Your task to perform on an android device: Go to Reddit.com Image 0: 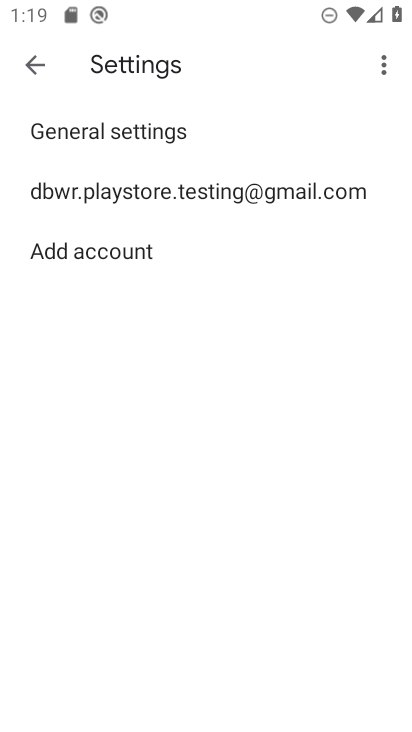
Step 0: press home button
Your task to perform on an android device: Go to Reddit.com Image 1: 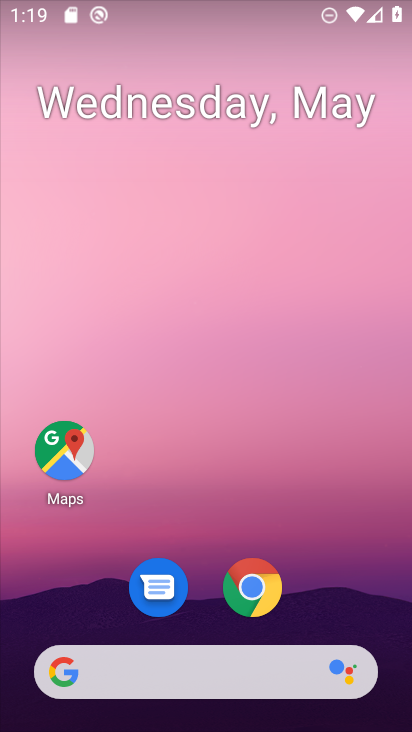
Step 1: click (256, 593)
Your task to perform on an android device: Go to Reddit.com Image 2: 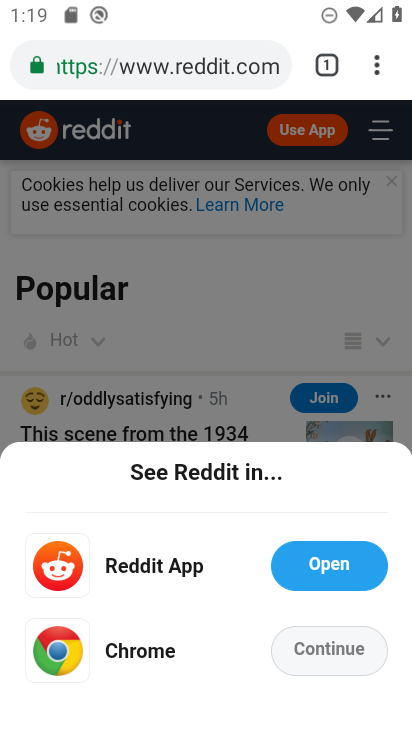
Step 2: click (350, 653)
Your task to perform on an android device: Go to Reddit.com Image 3: 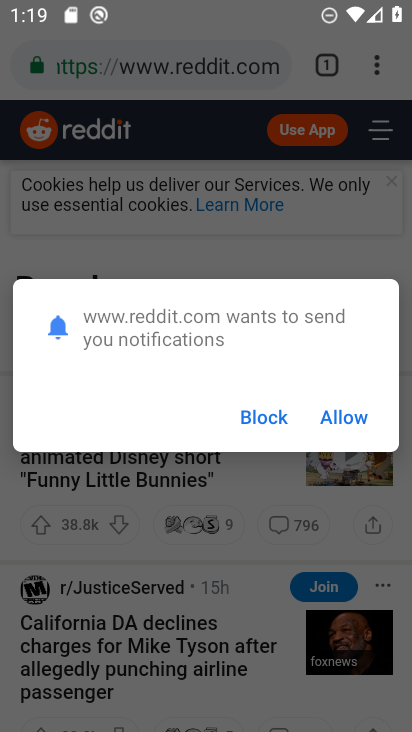
Step 3: click (266, 409)
Your task to perform on an android device: Go to Reddit.com Image 4: 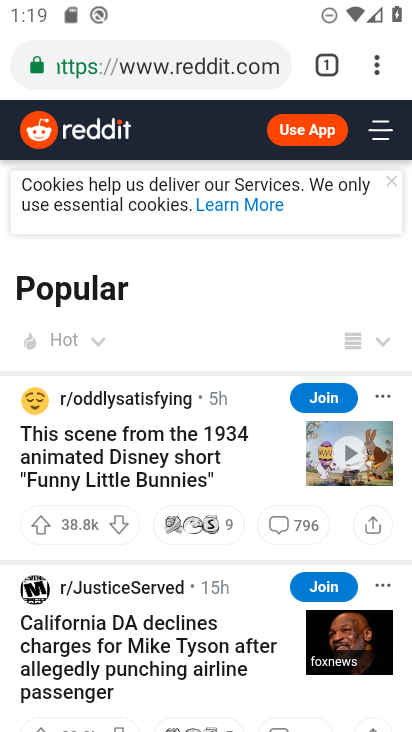
Step 4: task complete